Your task to perform on an android device: Is it going to rain this weekend? Image 0: 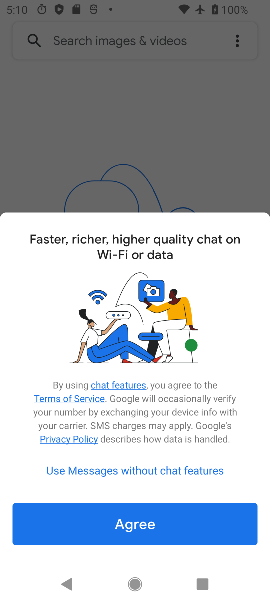
Step 0: click (175, 139)
Your task to perform on an android device: Is it going to rain this weekend? Image 1: 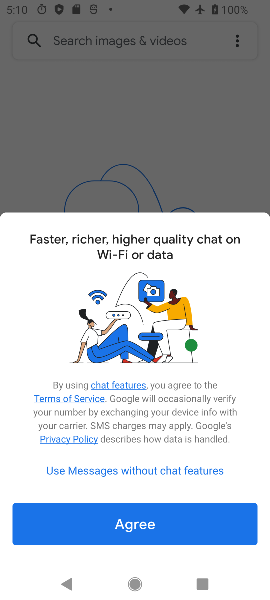
Step 1: click (175, 139)
Your task to perform on an android device: Is it going to rain this weekend? Image 2: 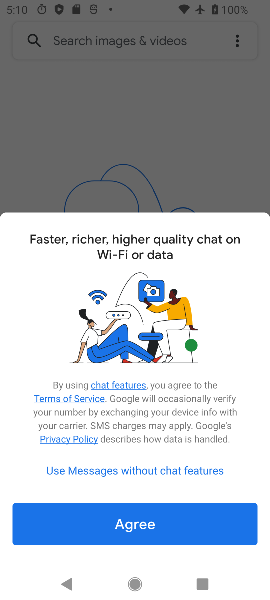
Step 2: click (175, 139)
Your task to perform on an android device: Is it going to rain this weekend? Image 3: 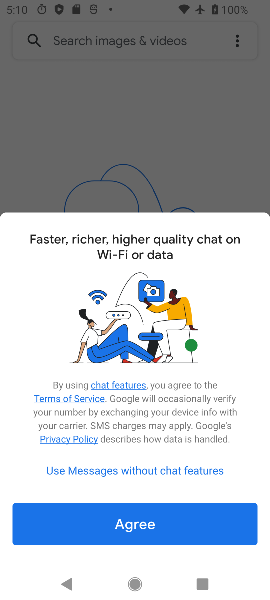
Step 3: click (196, 167)
Your task to perform on an android device: Is it going to rain this weekend? Image 4: 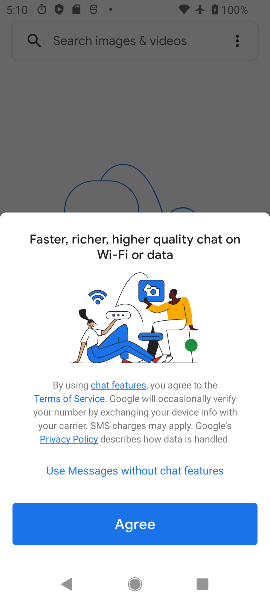
Step 4: click (196, 167)
Your task to perform on an android device: Is it going to rain this weekend? Image 5: 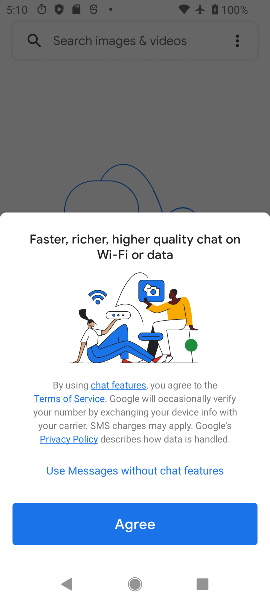
Step 5: press back button
Your task to perform on an android device: Is it going to rain this weekend? Image 6: 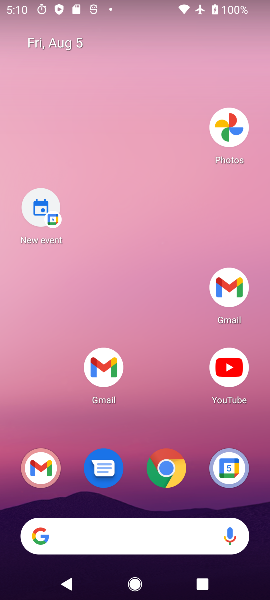
Step 6: click (178, 145)
Your task to perform on an android device: Is it going to rain this weekend? Image 7: 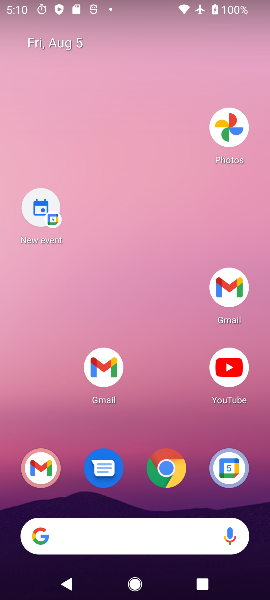
Step 7: drag from (160, 457) to (136, 14)
Your task to perform on an android device: Is it going to rain this weekend? Image 8: 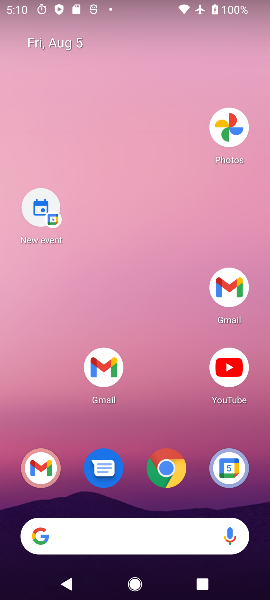
Step 8: drag from (200, 303) to (164, 35)
Your task to perform on an android device: Is it going to rain this weekend? Image 9: 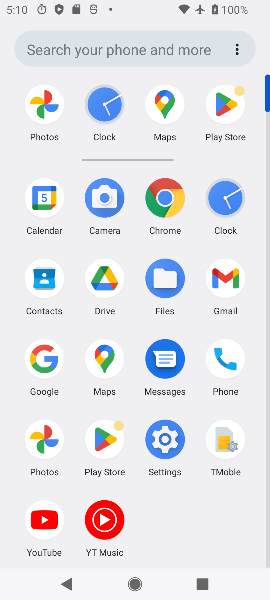
Step 9: click (167, 203)
Your task to perform on an android device: Is it going to rain this weekend? Image 10: 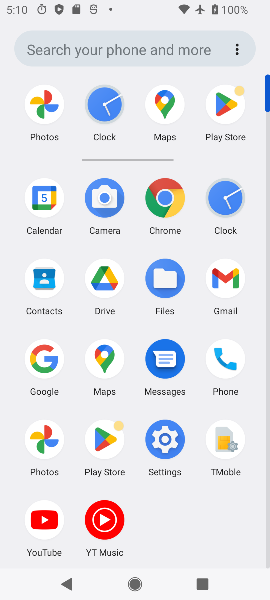
Step 10: click (167, 203)
Your task to perform on an android device: Is it going to rain this weekend? Image 11: 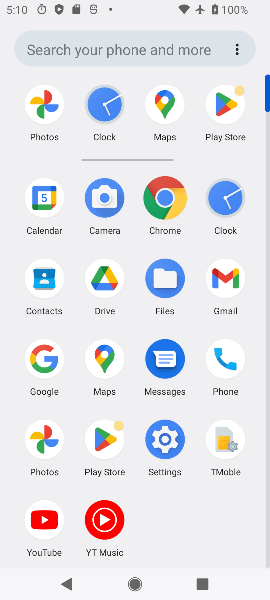
Step 11: click (167, 203)
Your task to perform on an android device: Is it going to rain this weekend? Image 12: 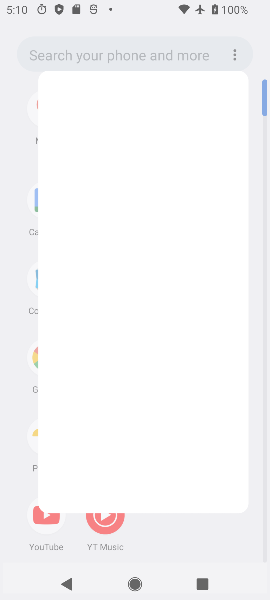
Step 12: click (167, 203)
Your task to perform on an android device: Is it going to rain this weekend? Image 13: 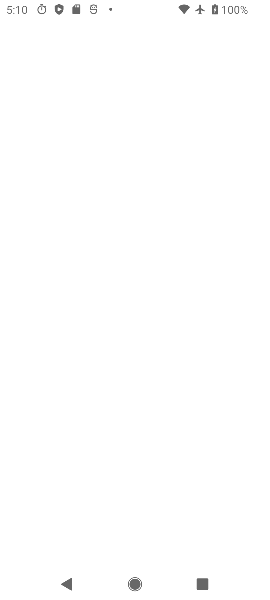
Step 13: click (167, 203)
Your task to perform on an android device: Is it going to rain this weekend? Image 14: 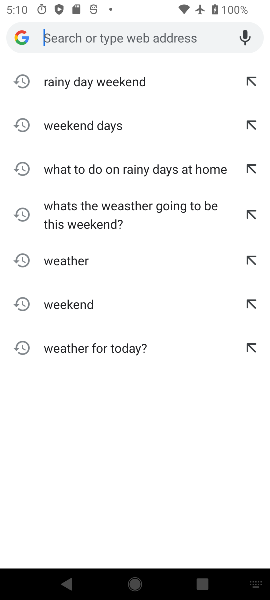
Step 14: click (167, 203)
Your task to perform on an android device: Is it going to rain this weekend? Image 15: 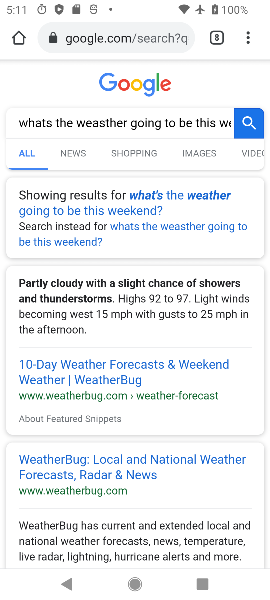
Step 15: type "is "
Your task to perform on an android device: Is it going to rain this weekend? Image 16: 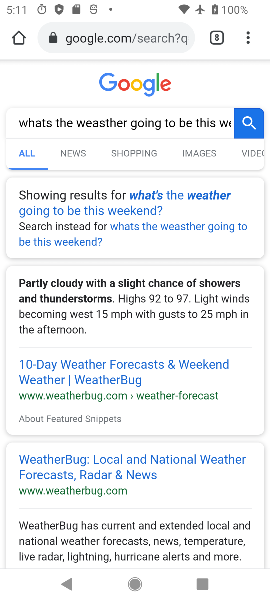
Step 16: press back button
Your task to perform on an android device: Is it going to rain this weekend? Image 17: 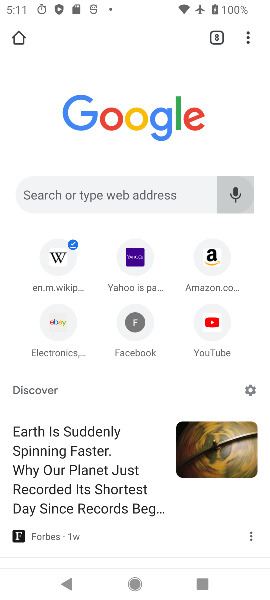
Step 17: click (41, 190)
Your task to perform on an android device: Is it going to rain this weekend? Image 18: 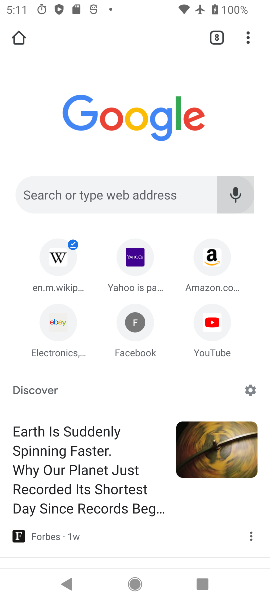
Step 18: click (41, 190)
Your task to perform on an android device: Is it going to rain this weekend? Image 19: 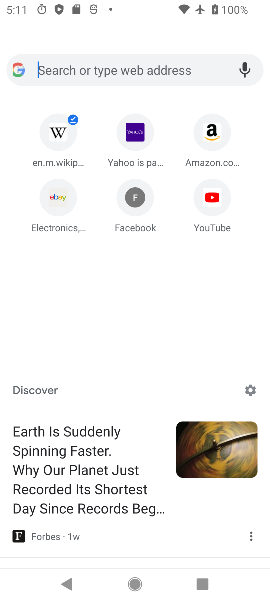
Step 19: click (41, 190)
Your task to perform on an android device: Is it going to rain this weekend? Image 20: 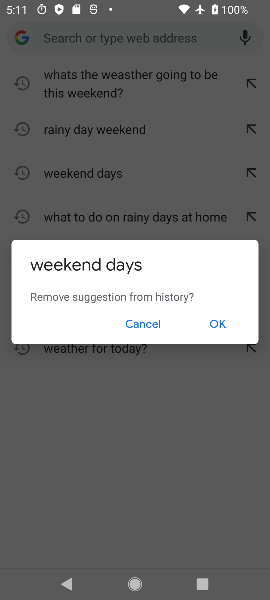
Step 20: click (145, 320)
Your task to perform on an android device: Is it going to rain this weekend? Image 21: 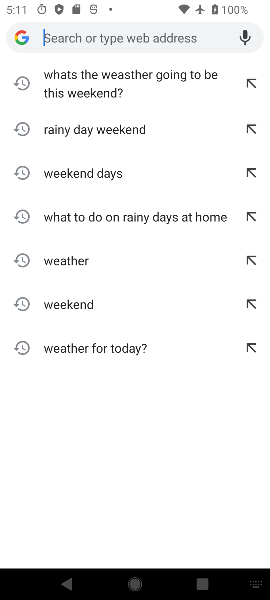
Step 21: click (219, 321)
Your task to perform on an android device: Is it going to rain this weekend? Image 22: 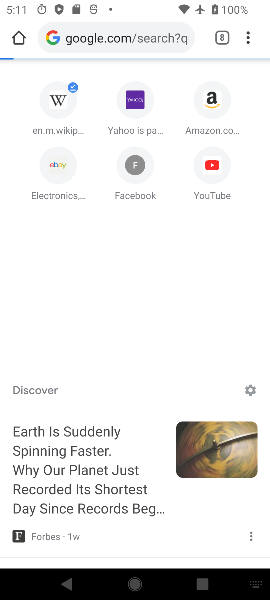
Step 22: click (220, 326)
Your task to perform on an android device: Is it going to rain this weekend? Image 23: 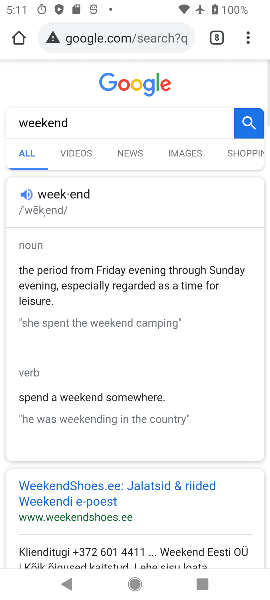
Step 23: click (213, 300)
Your task to perform on an android device: Is it going to rain this weekend? Image 24: 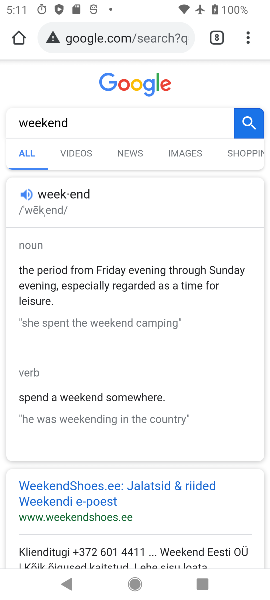
Step 24: click (55, 51)
Your task to perform on an android device: Is it going to rain this weekend? Image 25: 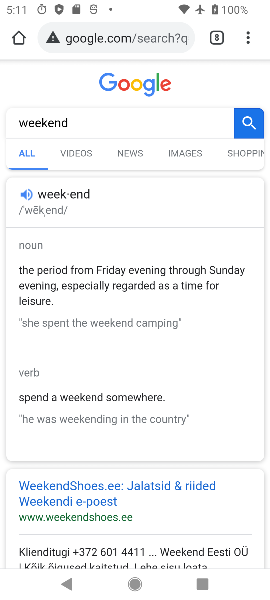
Step 25: click (50, 49)
Your task to perform on an android device: Is it going to rain this weekend? Image 26: 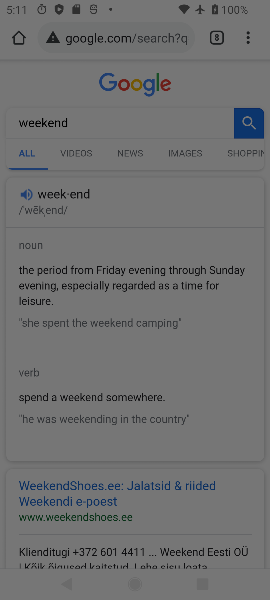
Step 26: click (50, 47)
Your task to perform on an android device: Is it going to rain this weekend? Image 27: 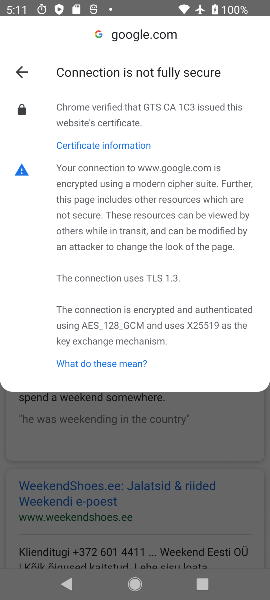
Step 27: type "is it going to rain this weekend?"
Your task to perform on an android device: Is it going to rain this weekend? Image 28: 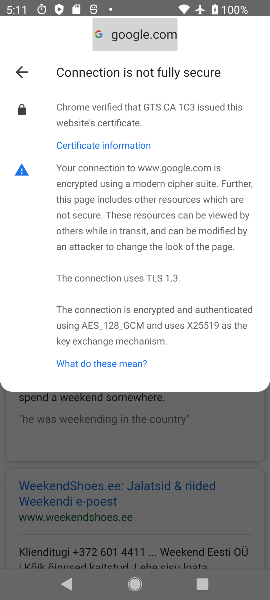
Step 28: click (15, 68)
Your task to perform on an android device: Is it going to rain this weekend? Image 29: 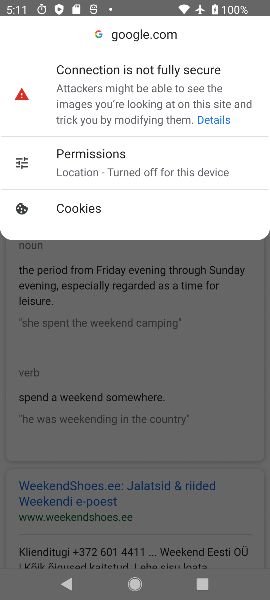
Step 29: click (199, 316)
Your task to perform on an android device: Is it going to rain this weekend? Image 30: 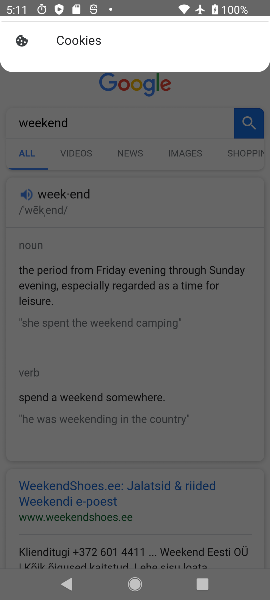
Step 30: click (200, 332)
Your task to perform on an android device: Is it going to rain this weekend? Image 31: 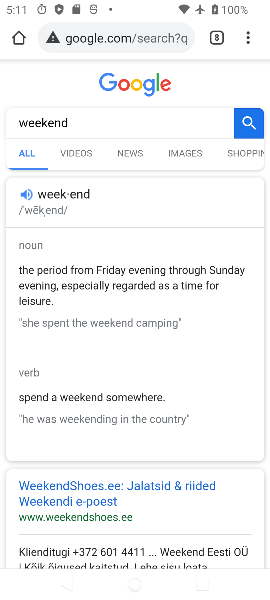
Step 31: click (200, 332)
Your task to perform on an android device: Is it going to rain this weekend? Image 32: 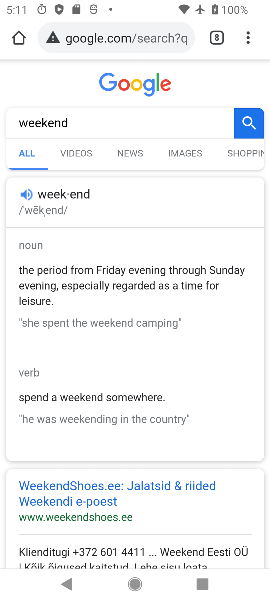
Step 32: click (202, 337)
Your task to perform on an android device: Is it going to rain this weekend? Image 33: 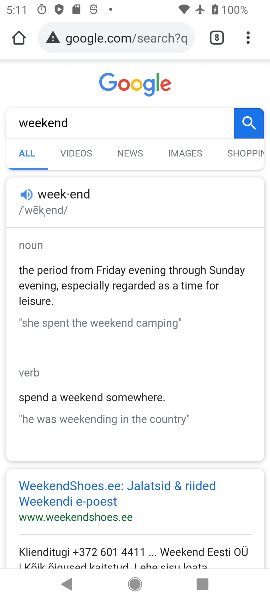
Step 33: task complete